Your task to perform on an android device: Toggle the flashlight Image 0: 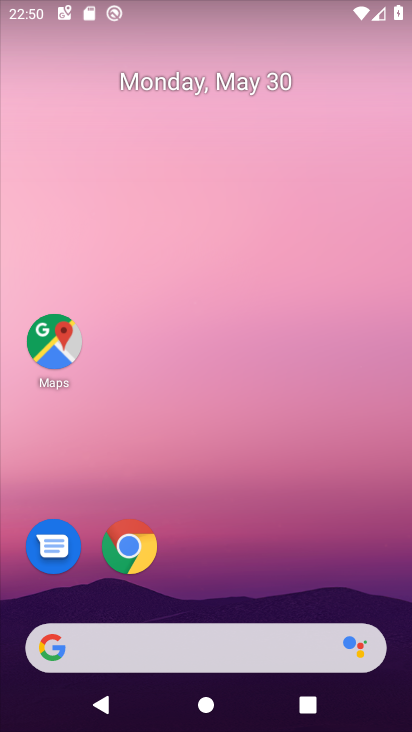
Step 0: drag from (194, 587) to (233, 248)
Your task to perform on an android device: Toggle the flashlight Image 1: 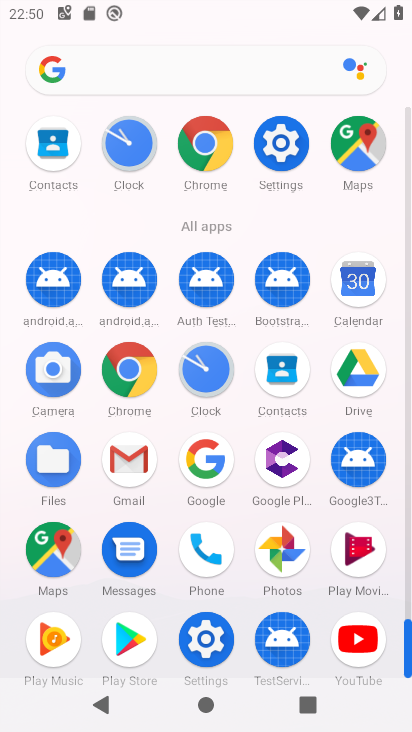
Step 1: click (285, 154)
Your task to perform on an android device: Toggle the flashlight Image 2: 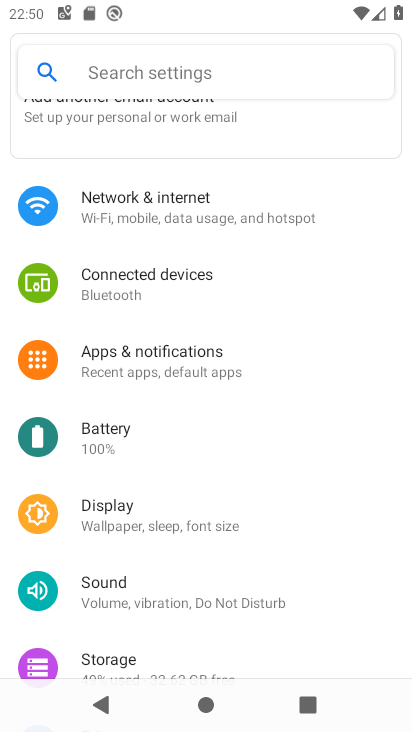
Step 2: click (231, 54)
Your task to perform on an android device: Toggle the flashlight Image 3: 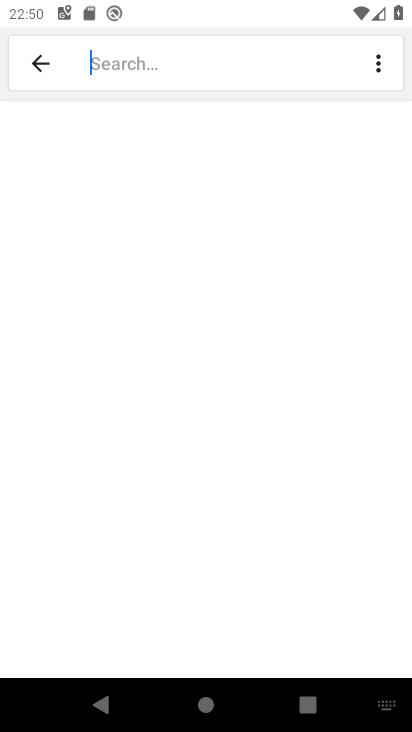
Step 3: type "flashlight'"
Your task to perform on an android device: Toggle the flashlight Image 4: 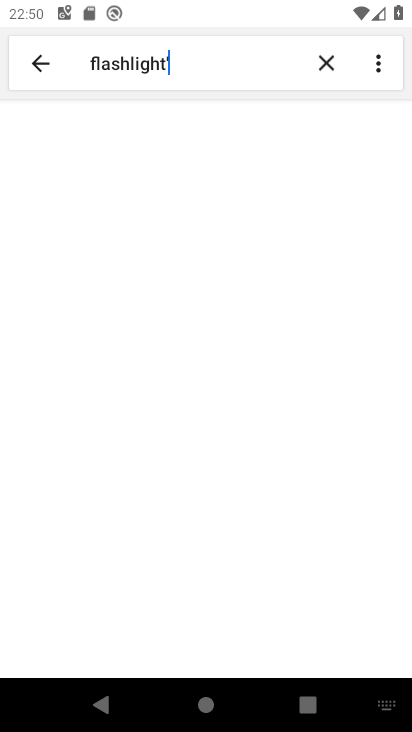
Step 4: click (145, 141)
Your task to perform on an android device: Toggle the flashlight Image 5: 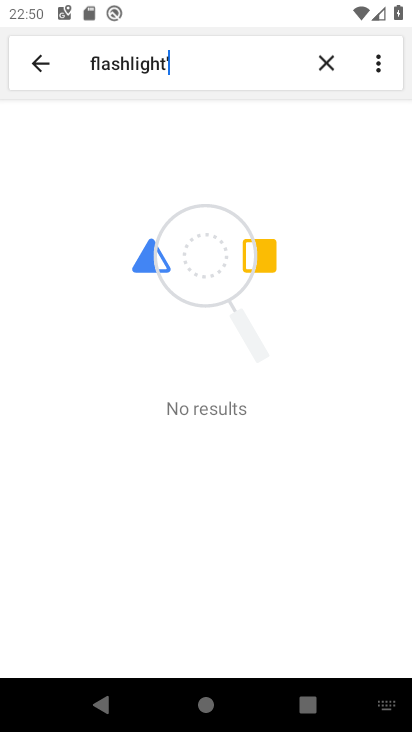
Step 5: task complete